Your task to perform on an android device: What's the weather going to be tomorrow? Image 0: 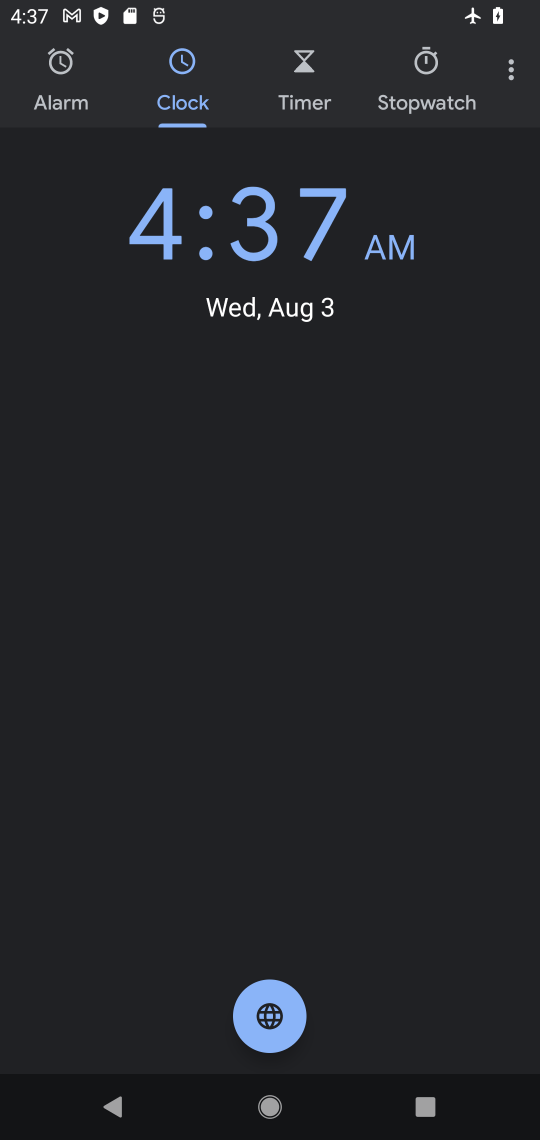
Step 0: press home button
Your task to perform on an android device: What's the weather going to be tomorrow? Image 1: 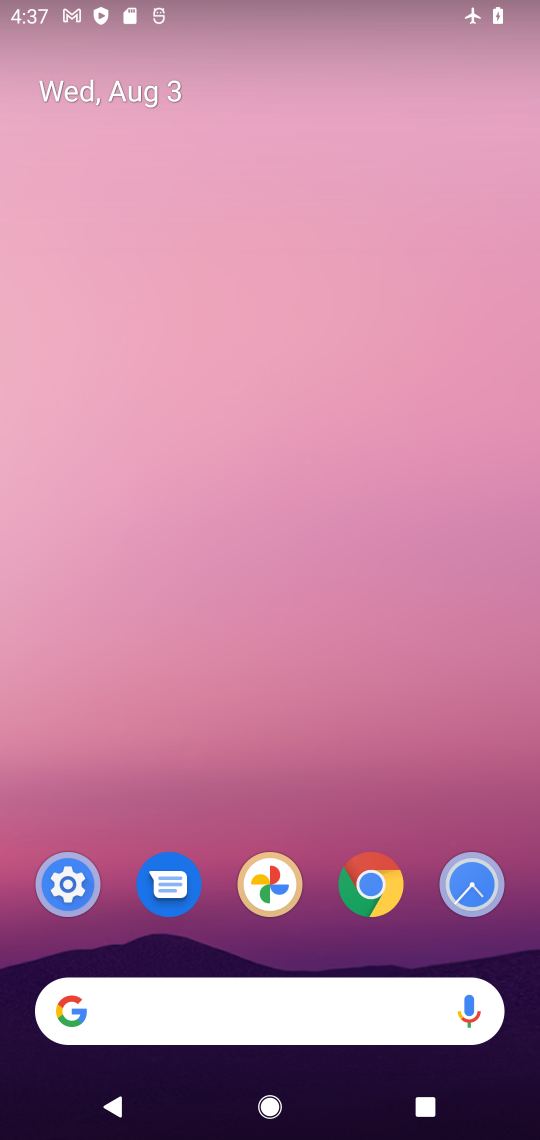
Step 1: drag from (250, 838) to (193, 26)
Your task to perform on an android device: What's the weather going to be tomorrow? Image 2: 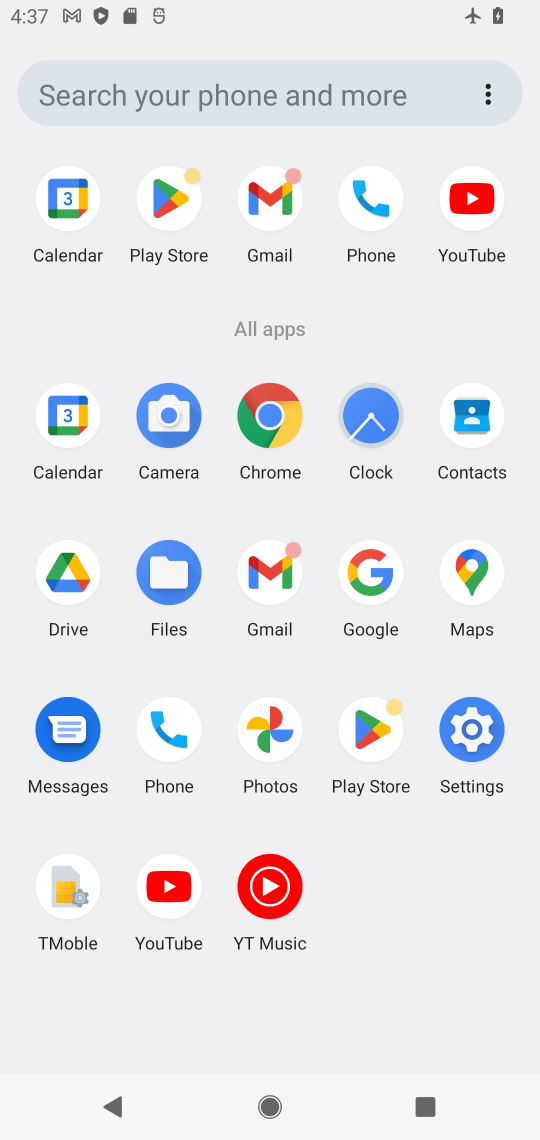
Step 2: click (365, 600)
Your task to perform on an android device: What's the weather going to be tomorrow? Image 3: 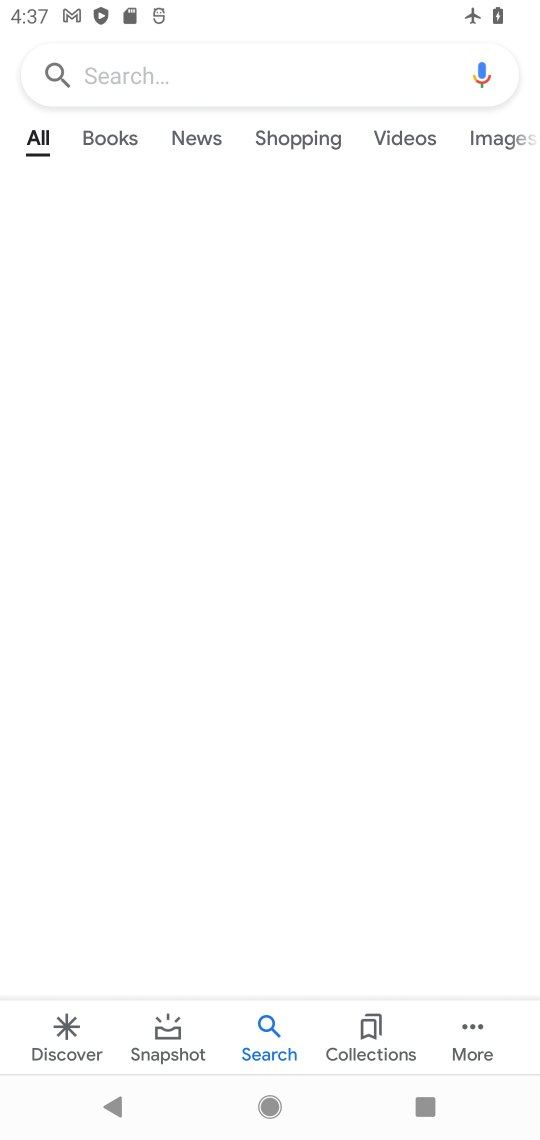
Step 3: press back button
Your task to perform on an android device: What's the weather going to be tomorrow? Image 4: 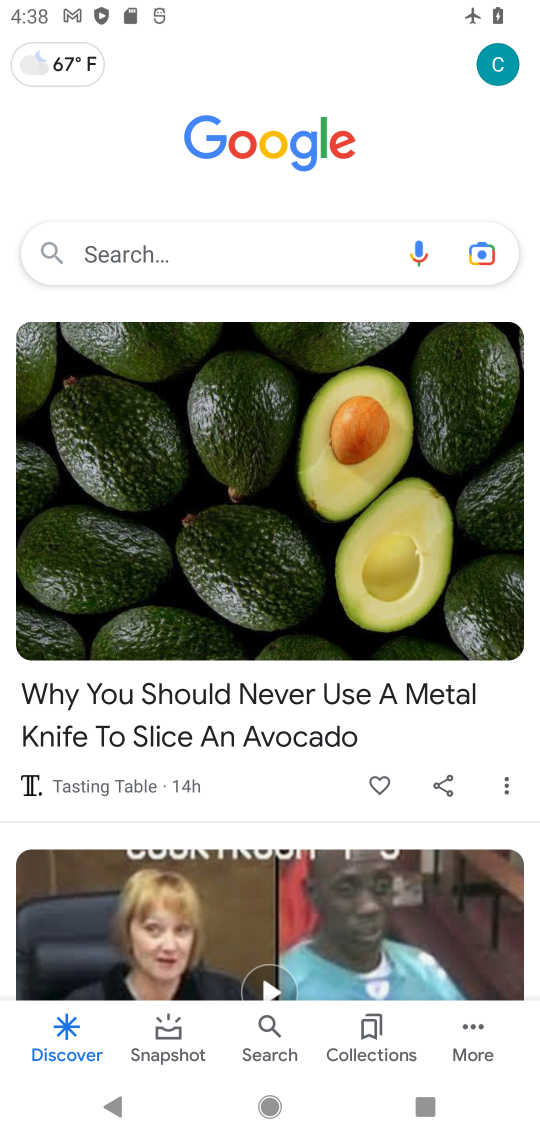
Step 4: click (128, 251)
Your task to perform on an android device: What's the weather going to be tomorrow? Image 5: 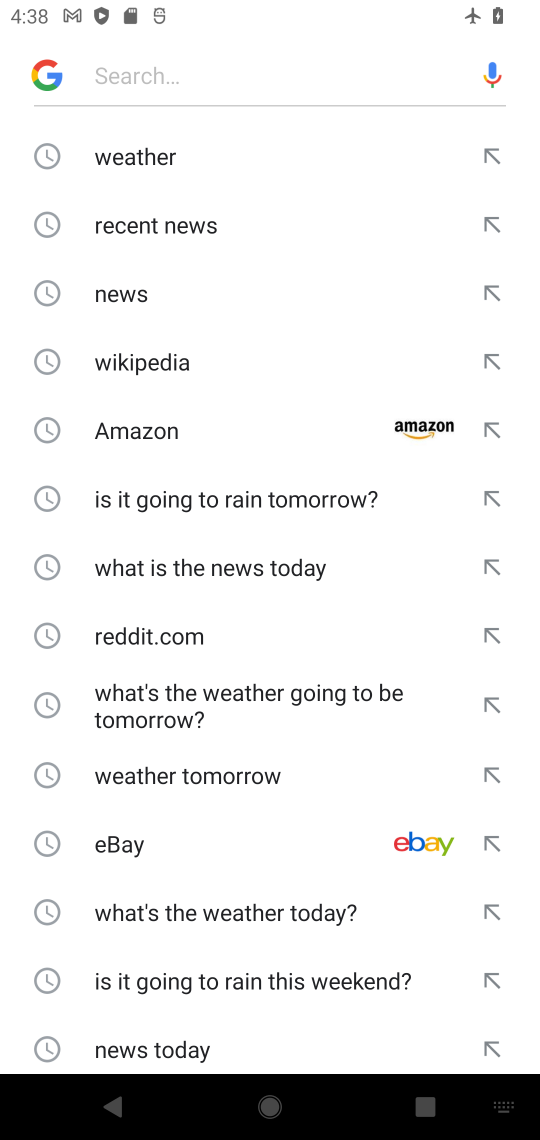
Step 5: click (147, 160)
Your task to perform on an android device: What's the weather going to be tomorrow? Image 6: 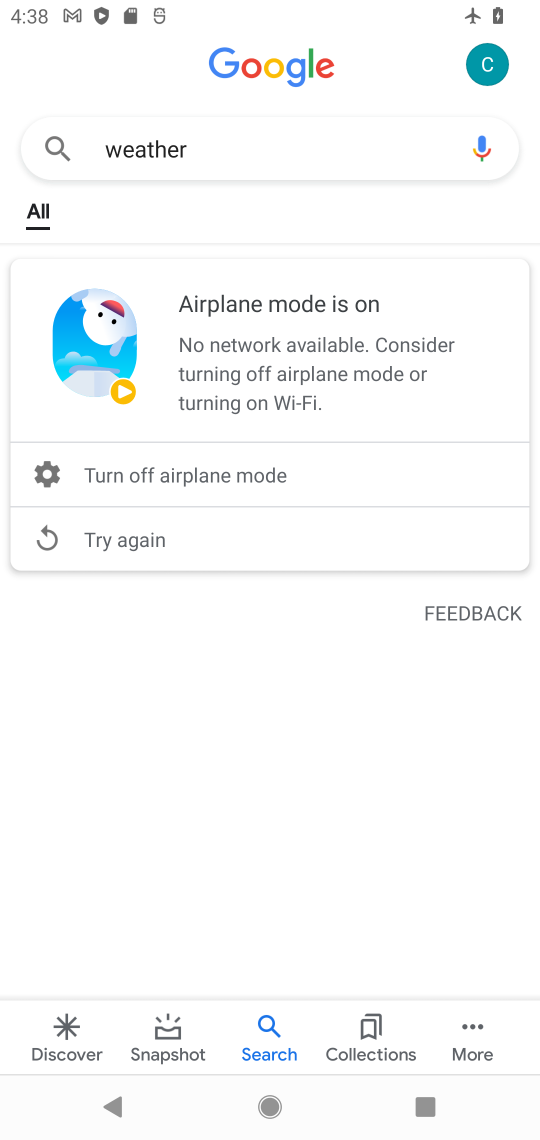
Step 6: click (39, 540)
Your task to perform on an android device: What's the weather going to be tomorrow? Image 7: 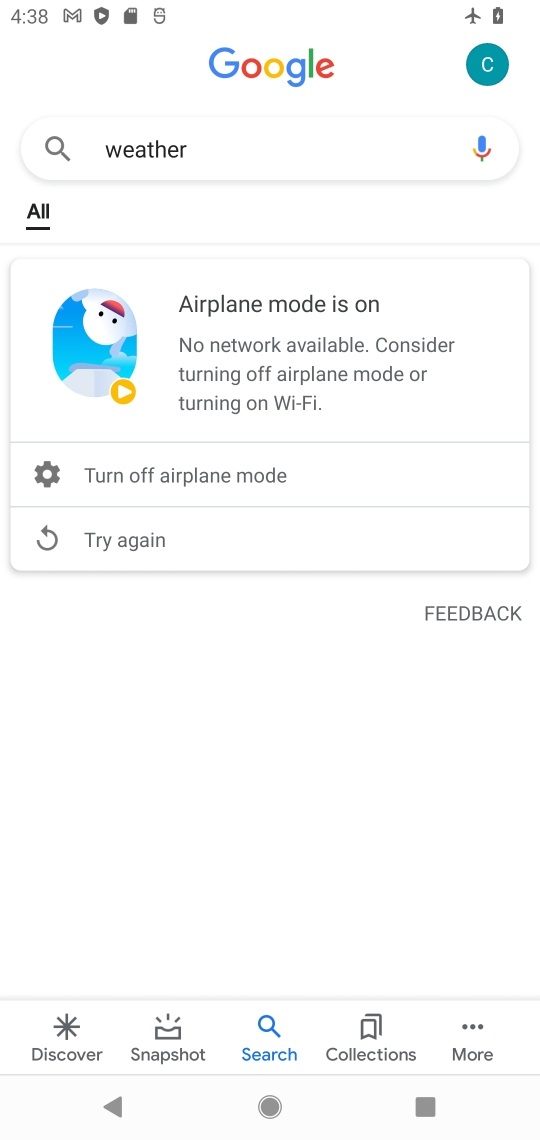
Step 7: press back button
Your task to perform on an android device: What's the weather going to be tomorrow? Image 8: 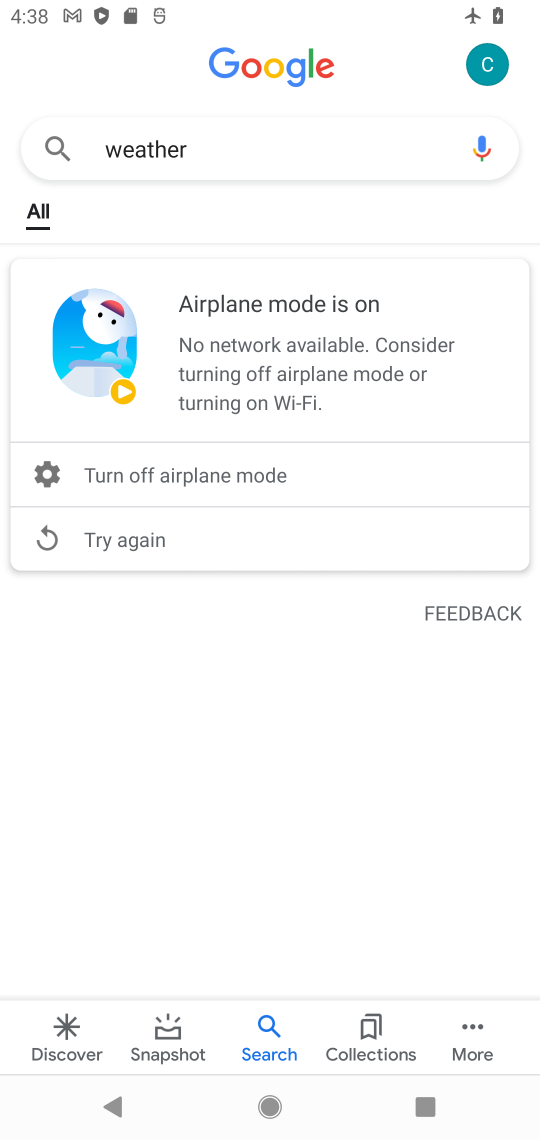
Step 8: press back button
Your task to perform on an android device: What's the weather going to be tomorrow? Image 9: 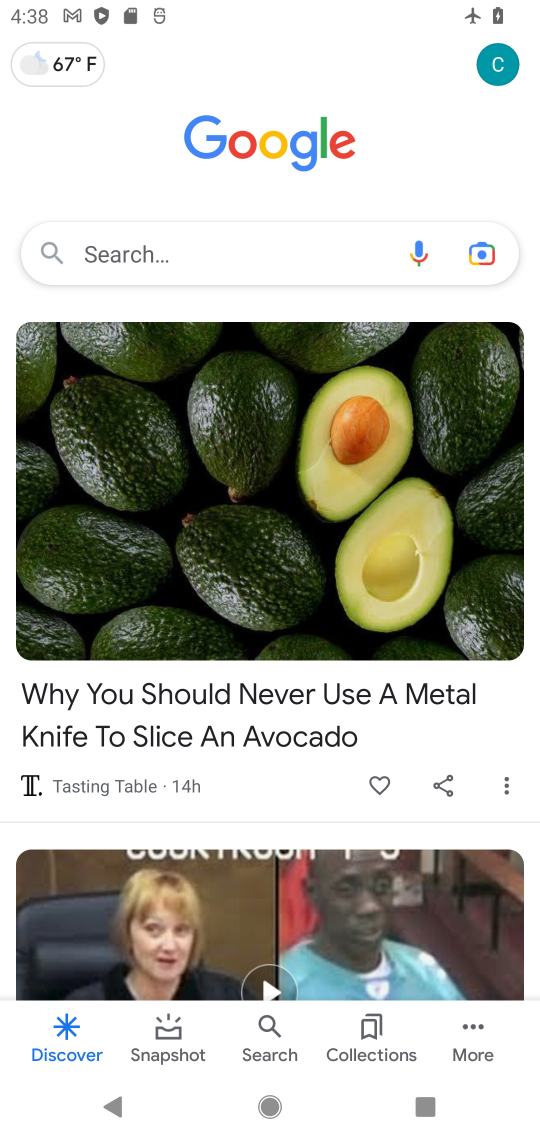
Step 9: click (87, 49)
Your task to perform on an android device: What's the weather going to be tomorrow? Image 10: 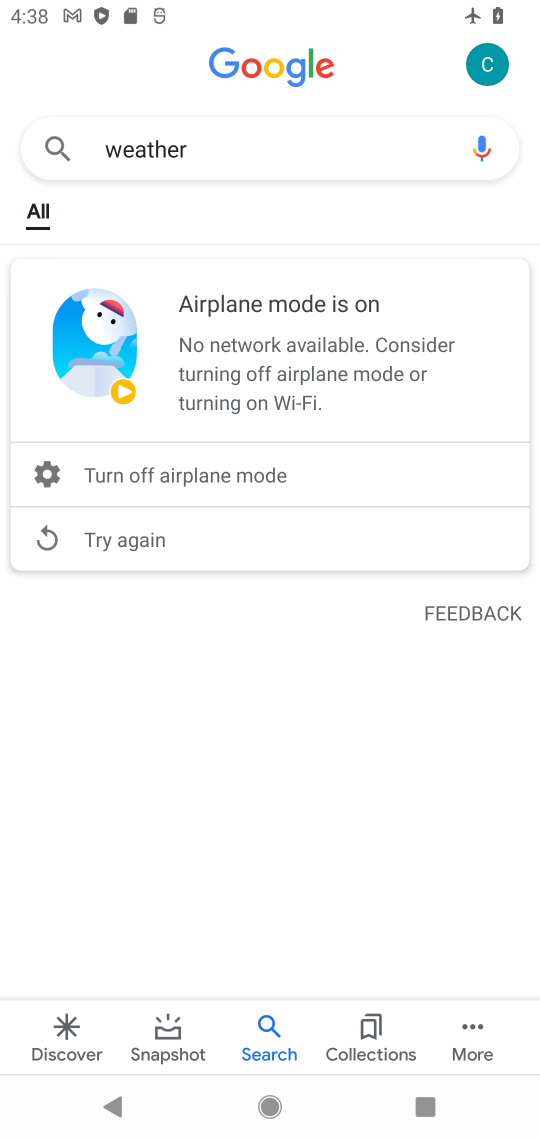
Step 10: task complete